Your task to perform on an android device: Check the weather Image 0: 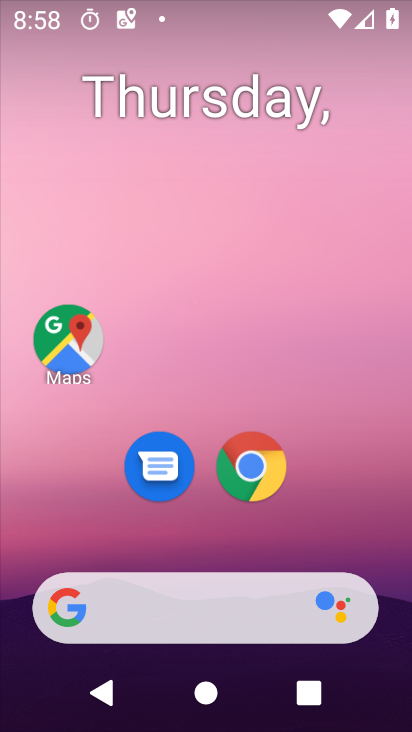
Step 0: click (163, 610)
Your task to perform on an android device: Check the weather Image 1: 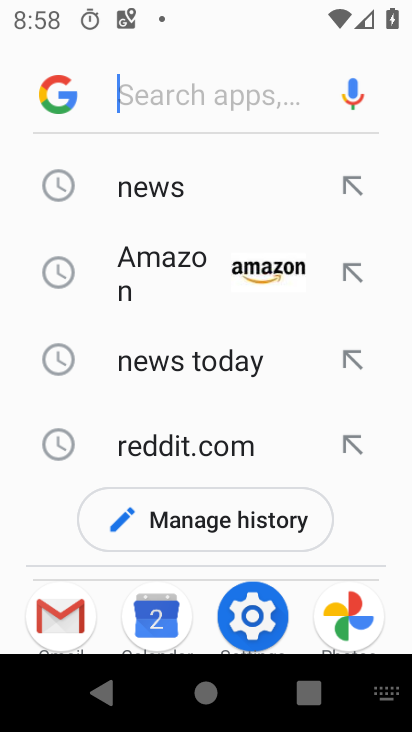
Step 1: type "weather"
Your task to perform on an android device: Check the weather Image 2: 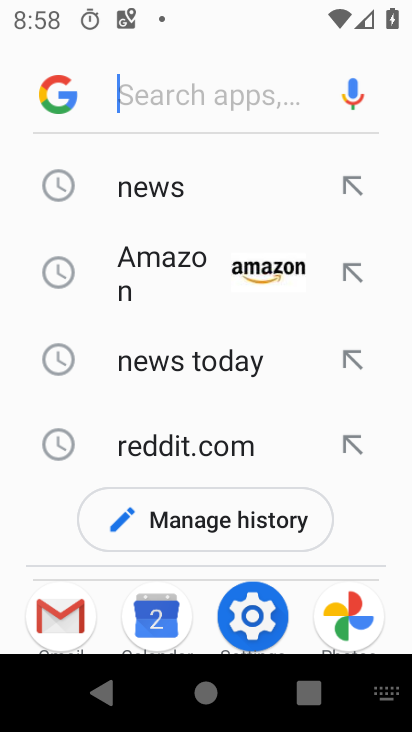
Step 2: click (177, 89)
Your task to perform on an android device: Check the weather Image 3: 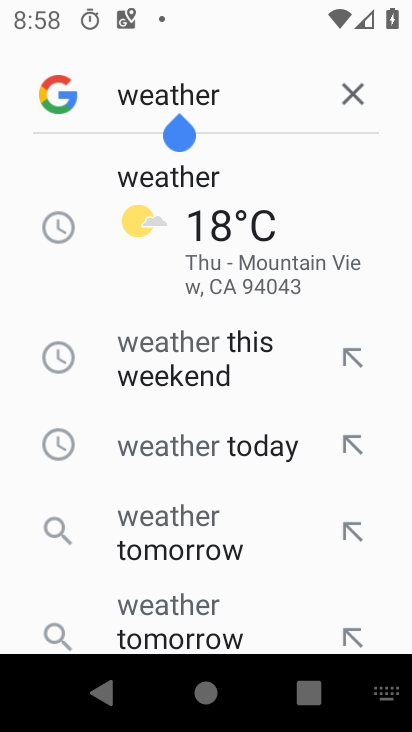
Step 3: click (80, 177)
Your task to perform on an android device: Check the weather Image 4: 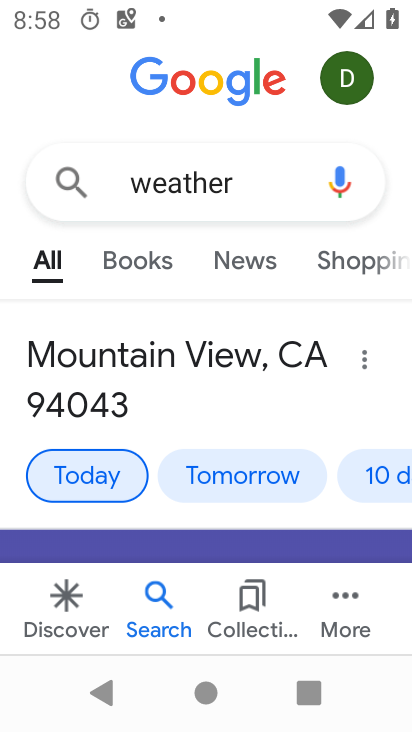
Step 4: task complete